Your task to perform on an android device: Open Chrome and go to settings Image 0: 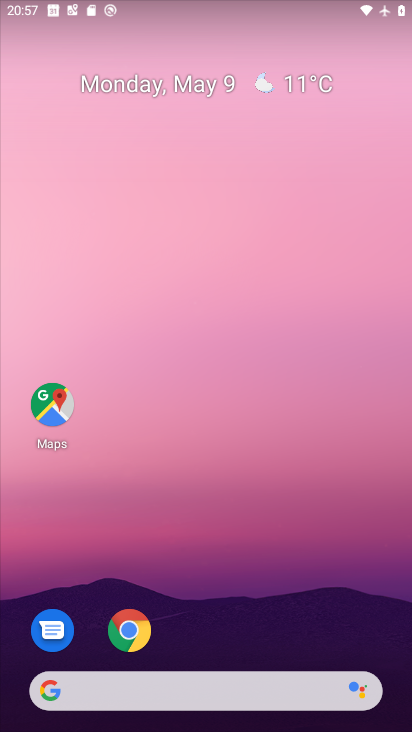
Step 0: click (123, 634)
Your task to perform on an android device: Open Chrome and go to settings Image 1: 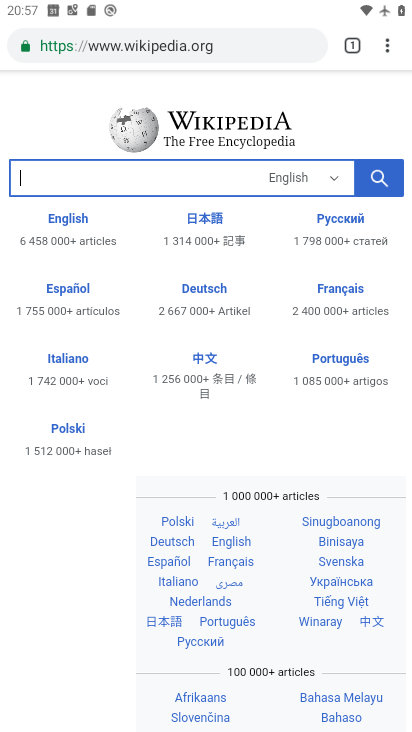
Step 1: task complete